Your task to perform on an android device: add a contact in the contacts app Image 0: 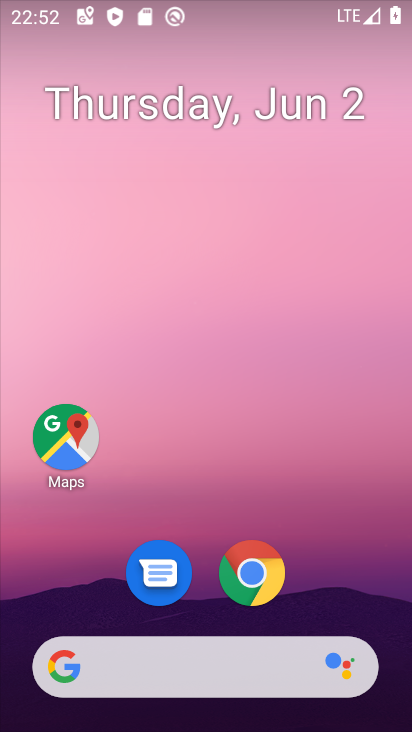
Step 0: drag from (359, 541) to (319, 231)
Your task to perform on an android device: add a contact in the contacts app Image 1: 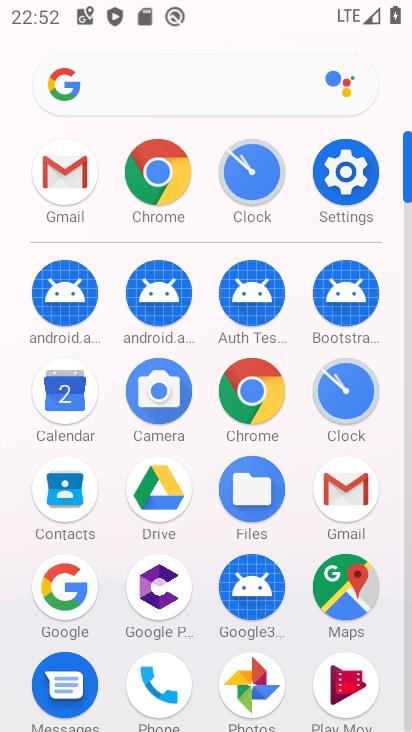
Step 1: click (54, 511)
Your task to perform on an android device: add a contact in the contacts app Image 2: 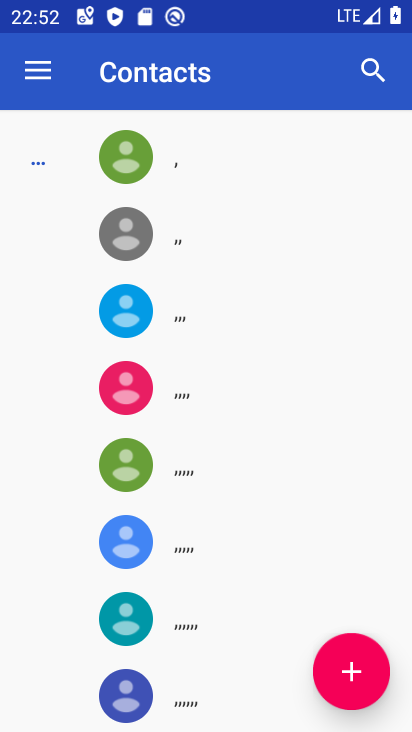
Step 2: click (328, 685)
Your task to perform on an android device: add a contact in the contacts app Image 3: 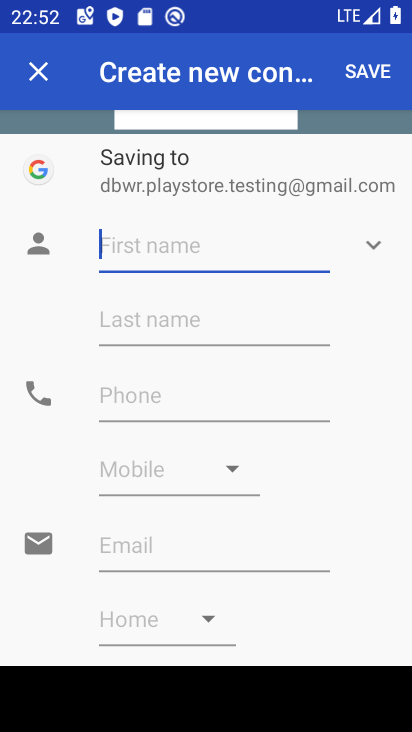
Step 3: type "AHfj"
Your task to perform on an android device: add a contact in the contacts app Image 4: 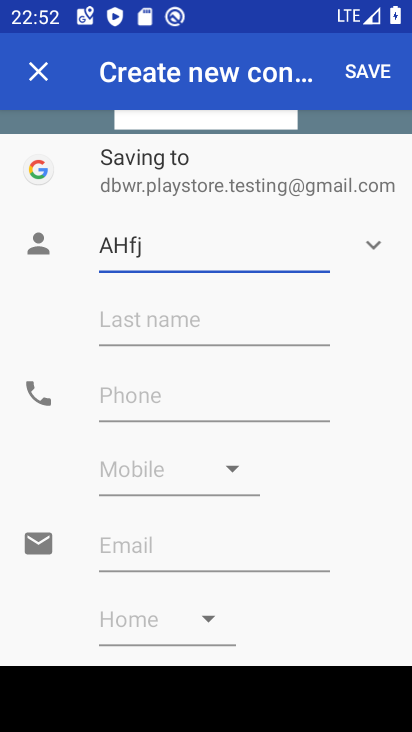
Step 4: click (195, 381)
Your task to perform on an android device: add a contact in the contacts app Image 5: 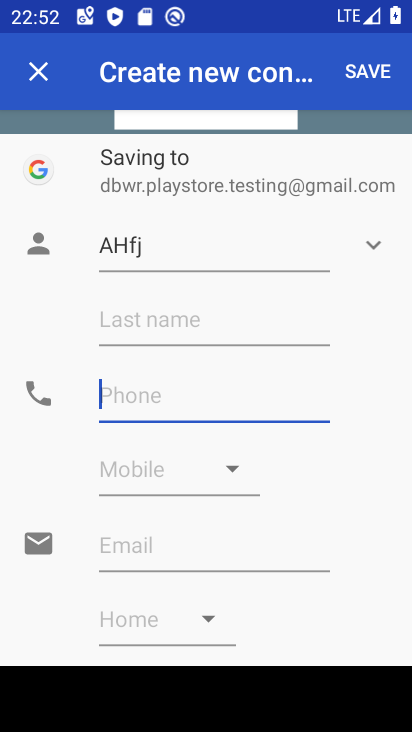
Step 5: type "9004811"
Your task to perform on an android device: add a contact in the contacts app Image 6: 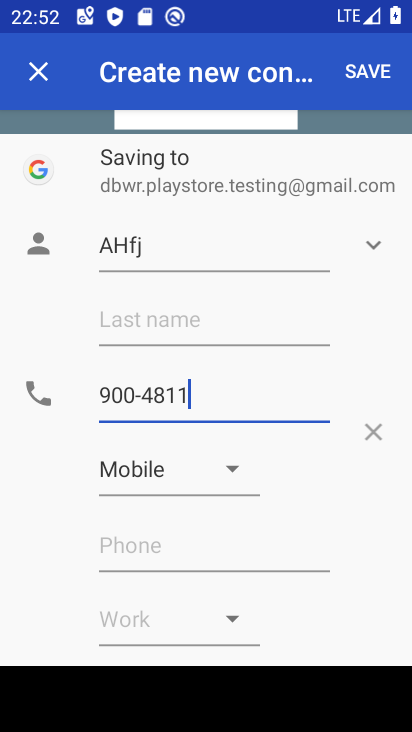
Step 6: click (371, 67)
Your task to perform on an android device: add a contact in the contacts app Image 7: 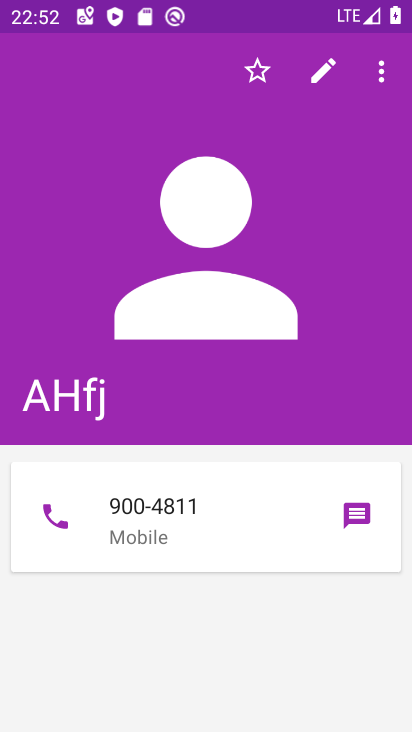
Step 7: task complete